Your task to perform on an android device: Open Wikipedia Image 0: 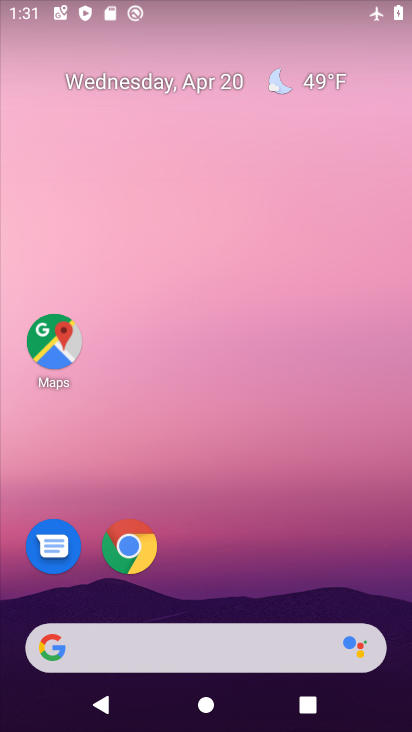
Step 0: drag from (280, 578) to (333, 175)
Your task to perform on an android device: Open Wikipedia Image 1: 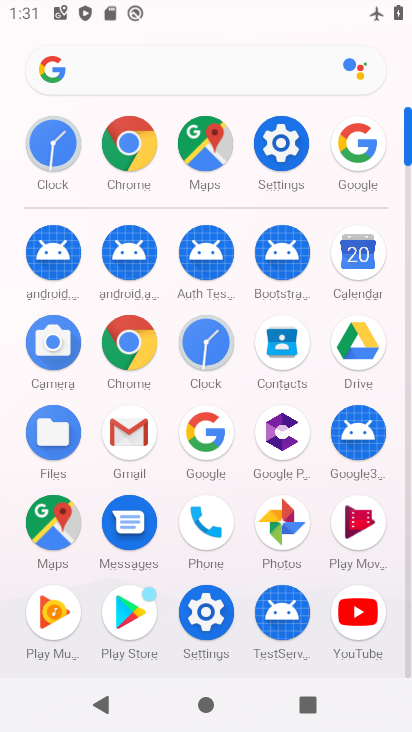
Step 1: click (129, 142)
Your task to perform on an android device: Open Wikipedia Image 2: 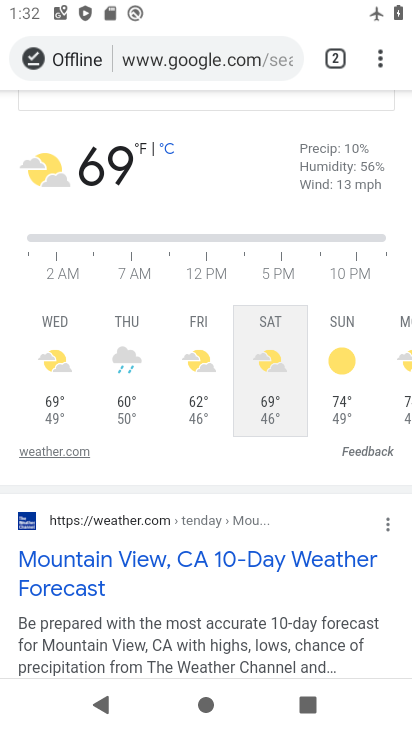
Step 2: click (375, 57)
Your task to perform on an android device: Open Wikipedia Image 3: 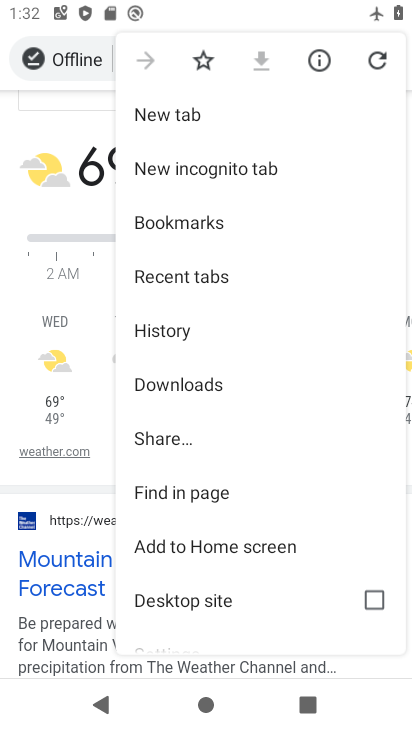
Step 3: click (213, 120)
Your task to perform on an android device: Open Wikipedia Image 4: 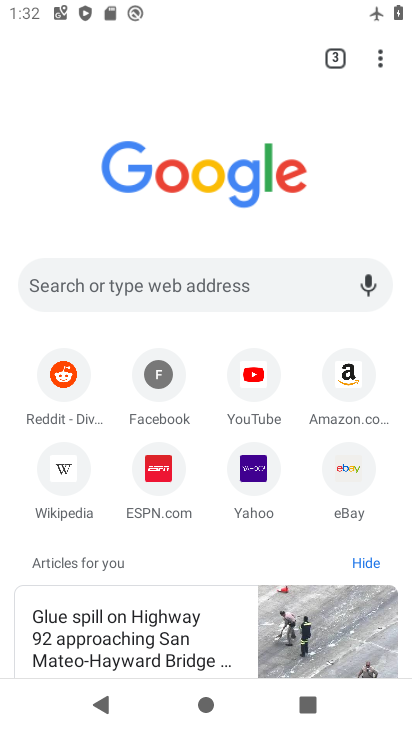
Step 4: click (60, 474)
Your task to perform on an android device: Open Wikipedia Image 5: 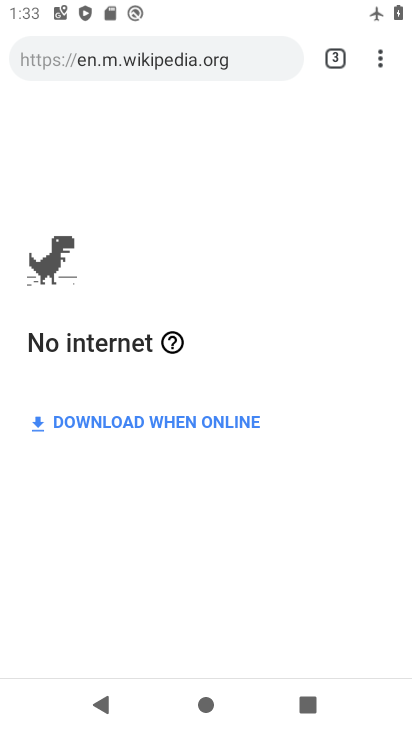
Step 5: task complete